Your task to perform on an android device: Turn off the flashlight Image 0: 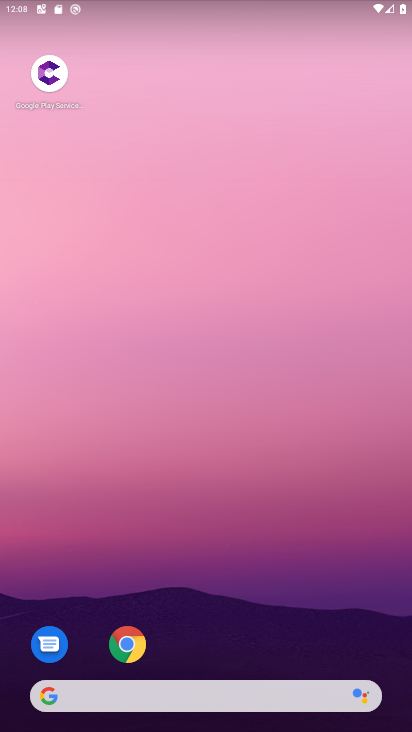
Step 0: drag from (232, 29) to (165, 587)
Your task to perform on an android device: Turn off the flashlight Image 1: 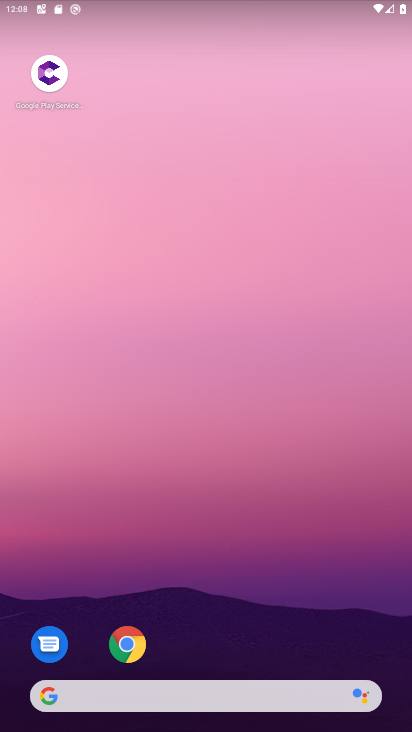
Step 1: task complete